Your task to perform on an android device: Go to Google maps Image 0: 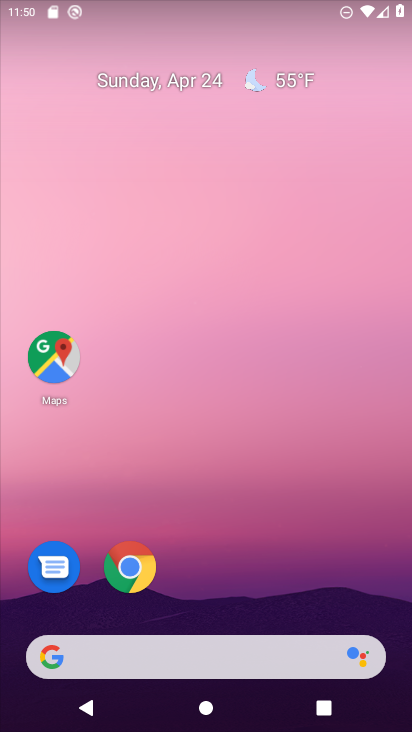
Step 0: click (59, 356)
Your task to perform on an android device: Go to Google maps Image 1: 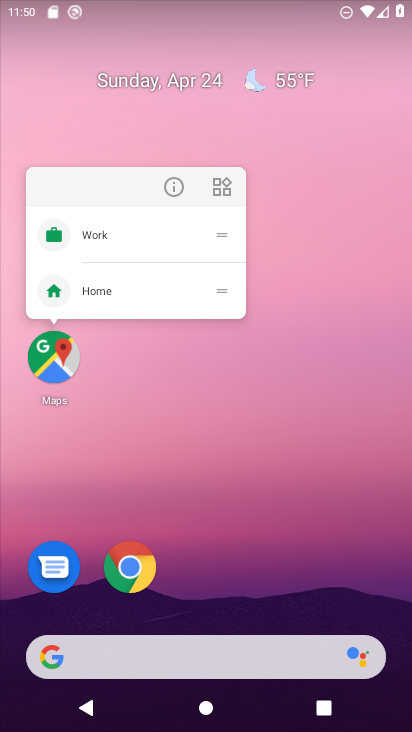
Step 1: click (59, 358)
Your task to perform on an android device: Go to Google maps Image 2: 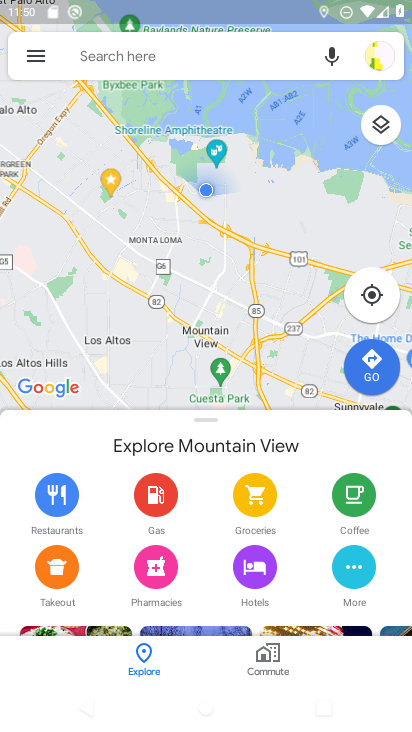
Step 2: task complete